Your task to perform on an android device: Go to privacy settings Image 0: 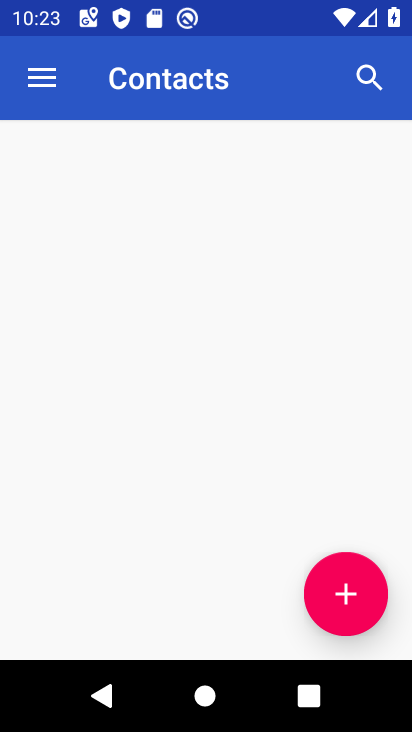
Step 0: click (247, 485)
Your task to perform on an android device: Go to privacy settings Image 1: 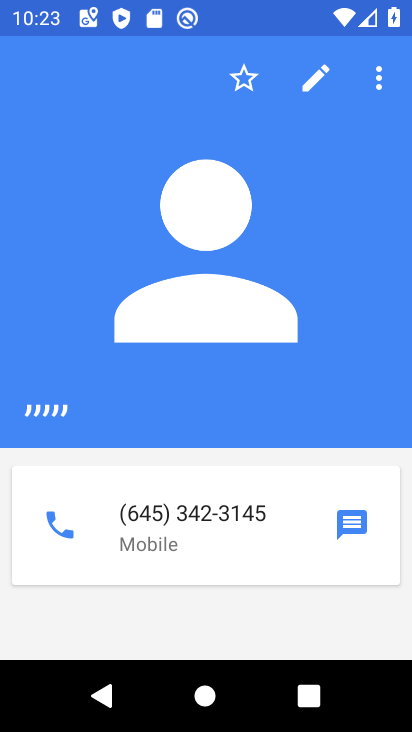
Step 1: press home button
Your task to perform on an android device: Go to privacy settings Image 2: 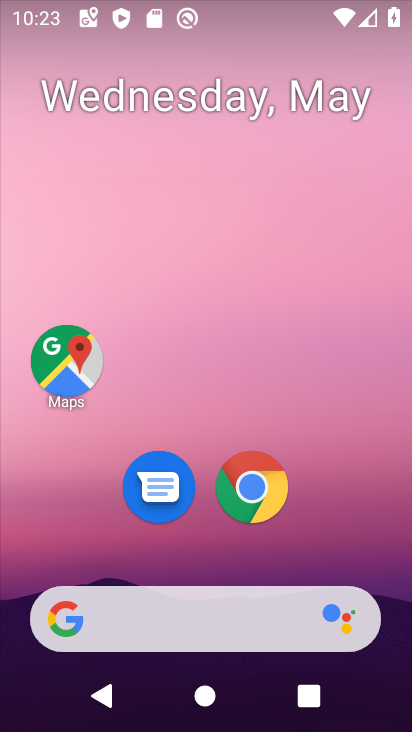
Step 2: drag from (213, 577) to (372, 28)
Your task to perform on an android device: Go to privacy settings Image 3: 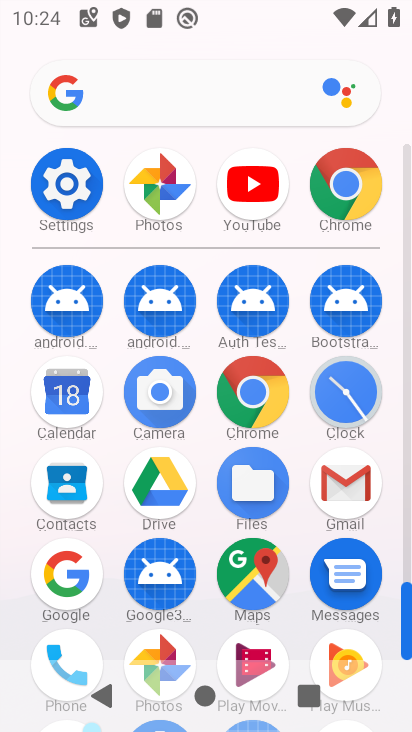
Step 3: click (70, 176)
Your task to perform on an android device: Go to privacy settings Image 4: 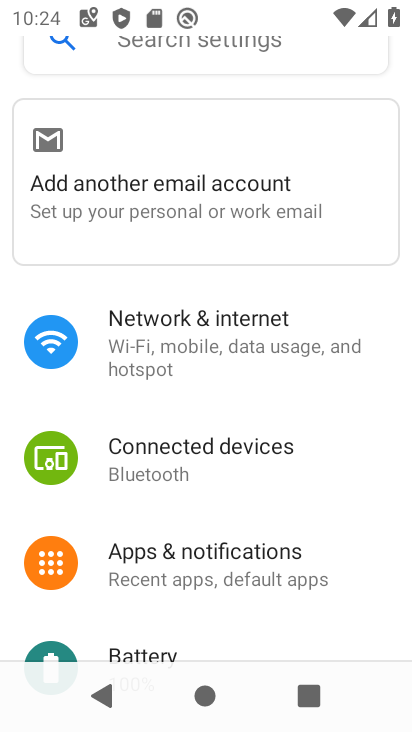
Step 4: drag from (180, 566) to (125, 177)
Your task to perform on an android device: Go to privacy settings Image 5: 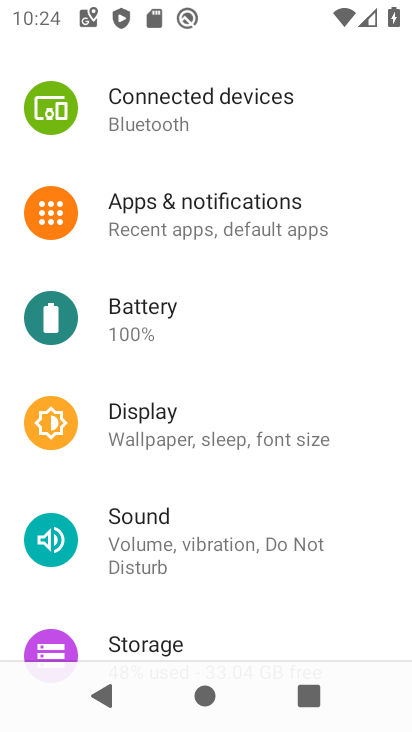
Step 5: drag from (212, 523) to (197, 85)
Your task to perform on an android device: Go to privacy settings Image 6: 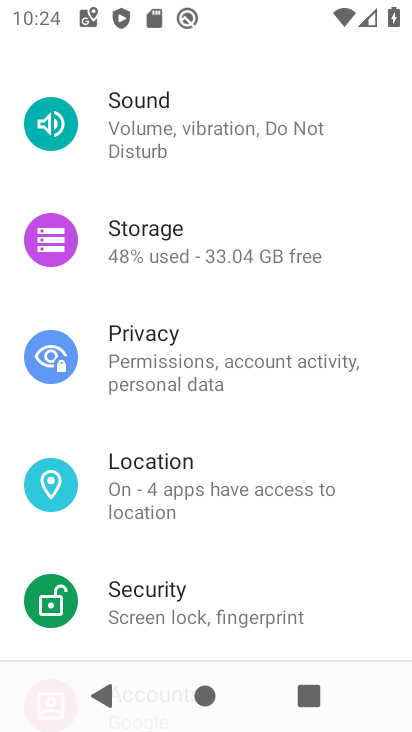
Step 6: drag from (256, 528) to (252, 401)
Your task to perform on an android device: Go to privacy settings Image 7: 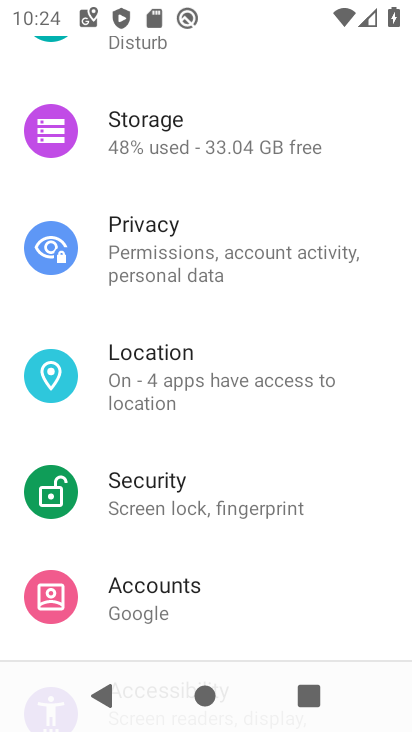
Step 7: click (188, 274)
Your task to perform on an android device: Go to privacy settings Image 8: 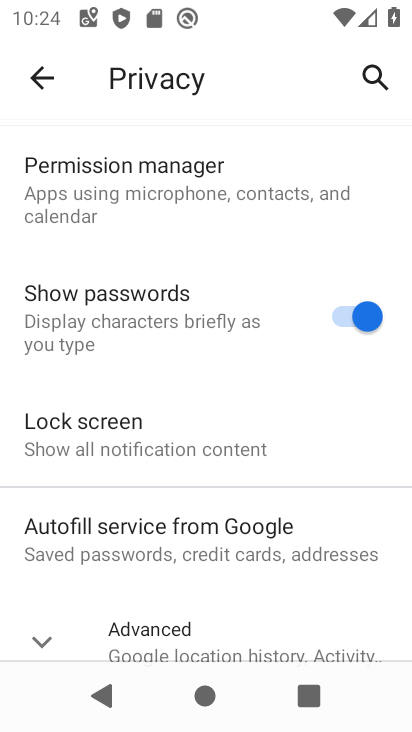
Step 8: task complete